Your task to perform on an android device: delete browsing data in the chrome app Image 0: 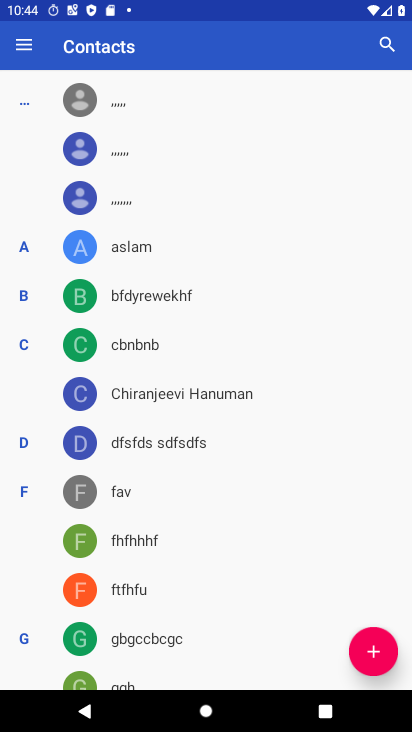
Step 0: press home button
Your task to perform on an android device: delete browsing data in the chrome app Image 1: 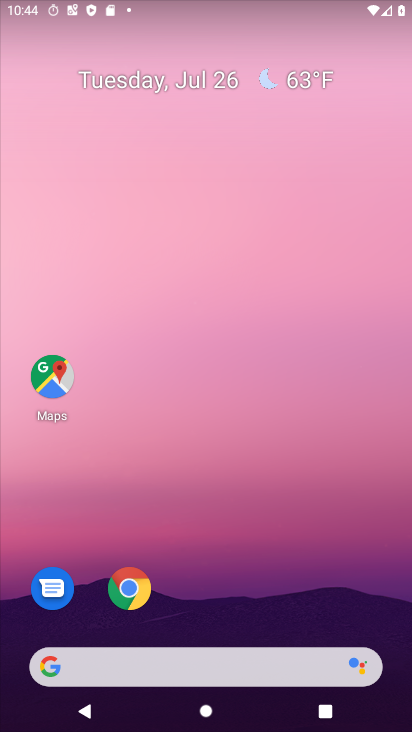
Step 1: click (136, 591)
Your task to perform on an android device: delete browsing data in the chrome app Image 2: 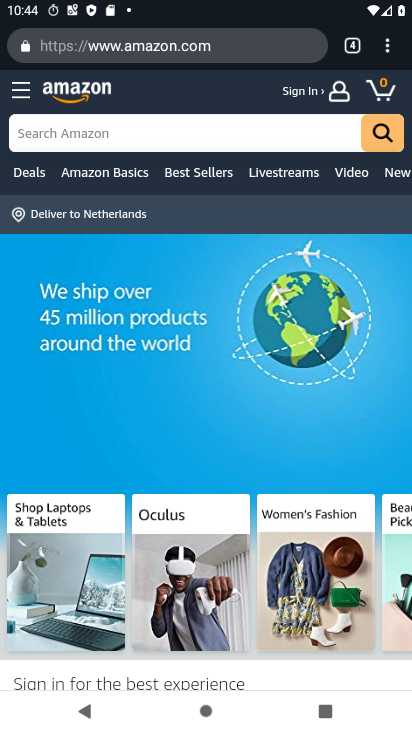
Step 2: click (392, 44)
Your task to perform on an android device: delete browsing data in the chrome app Image 3: 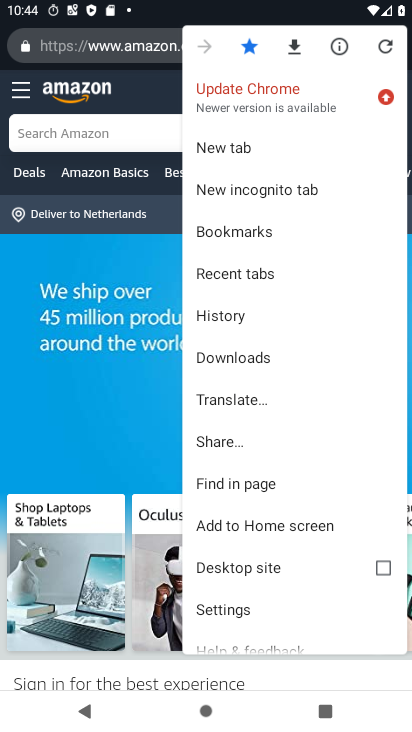
Step 3: click (236, 314)
Your task to perform on an android device: delete browsing data in the chrome app Image 4: 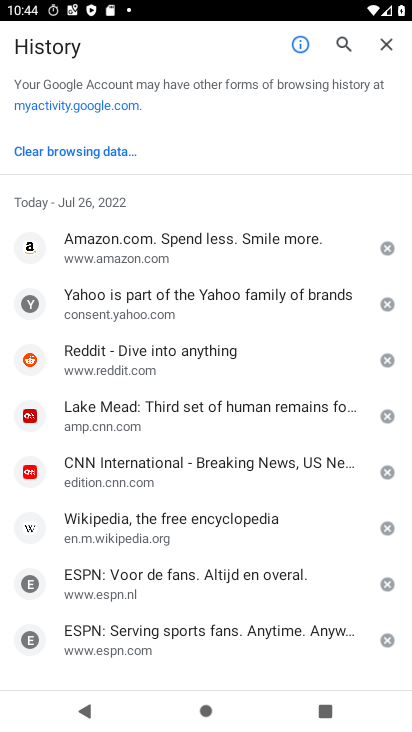
Step 4: click (110, 152)
Your task to perform on an android device: delete browsing data in the chrome app Image 5: 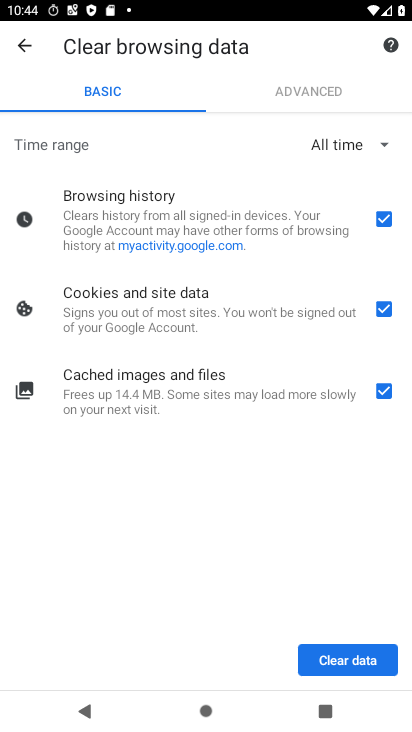
Step 5: click (395, 304)
Your task to perform on an android device: delete browsing data in the chrome app Image 6: 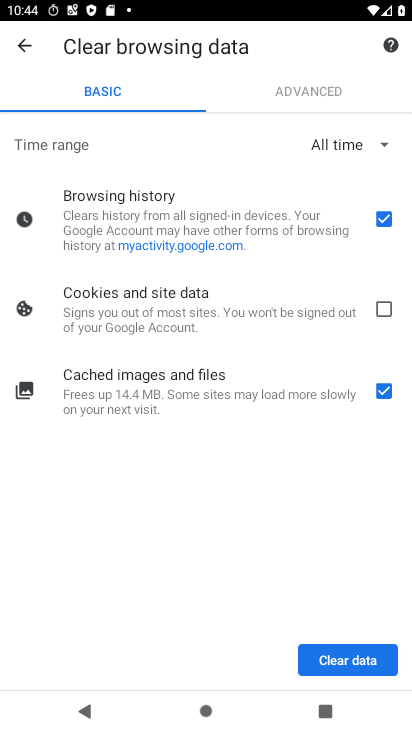
Step 6: click (383, 392)
Your task to perform on an android device: delete browsing data in the chrome app Image 7: 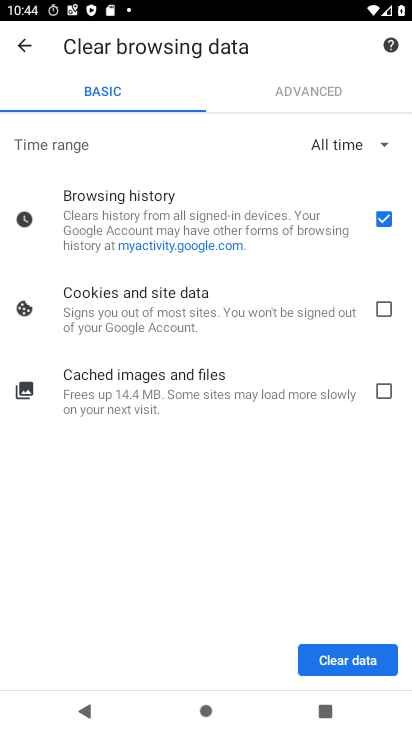
Step 7: click (330, 649)
Your task to perform on an android device: delete browsing data in the chrome app Image 8: 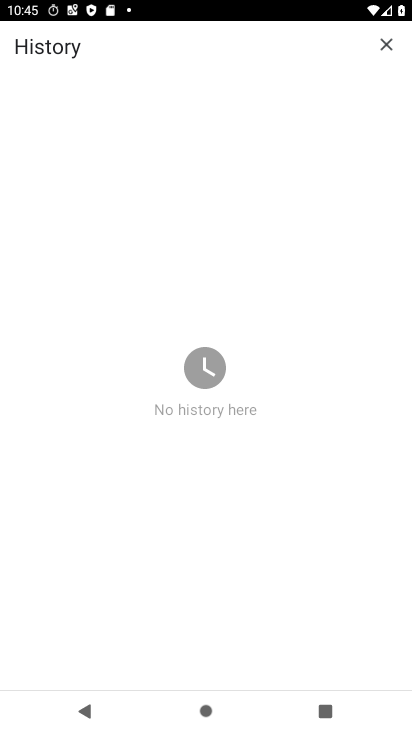
Step 8: task complete